Your task to perform on an android device: add a contact in the contacts app Image 0: 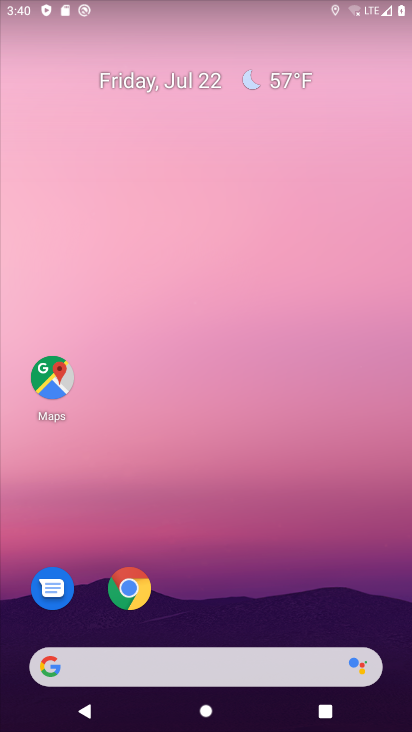
Step 0: drag from (220, 628) to (186, 124)
Your task to perform on an android device: add a contact in the contacts app Image 1: 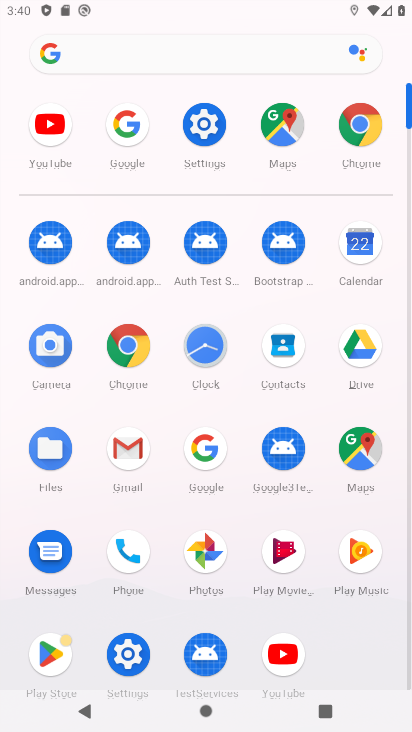
Step 1: click (128, 564)
Your task to perform on an android device: add a contact in the contacts app Image 2: 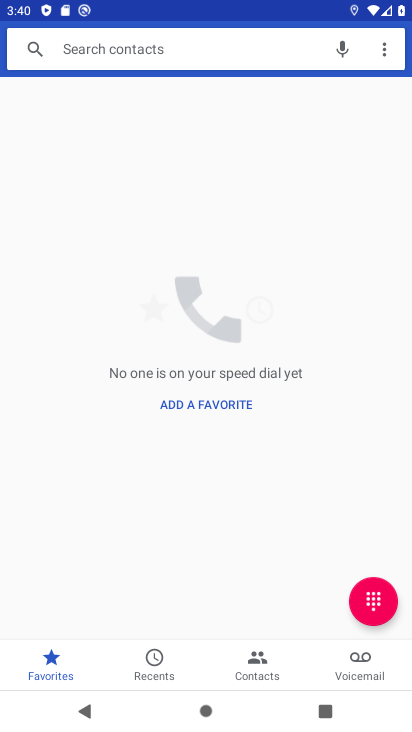
Step 2: click (272, 658)
Your task to perform on an android device: add a contact in the contacts app Image 3: 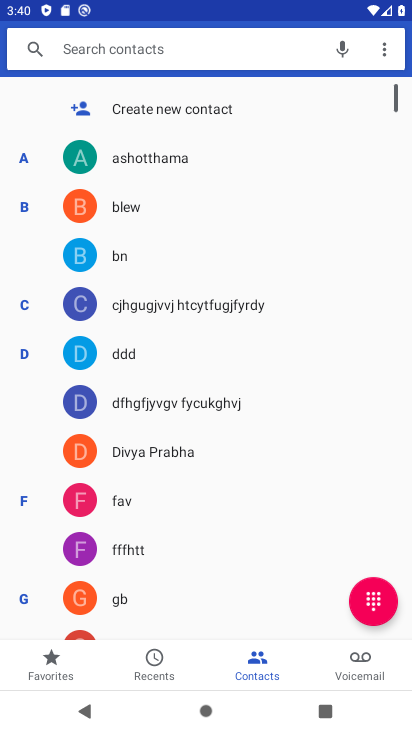
Step 3: click (107, 114)
Your task to perform on an android device: add a contact in the contacts app Image 4: 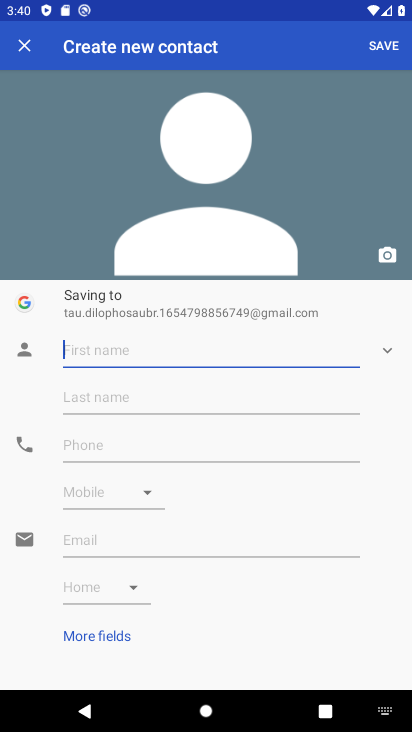
Step 4: type "Drive "
Your task to perform on an android device: add a contact in the contacts app Image 5: 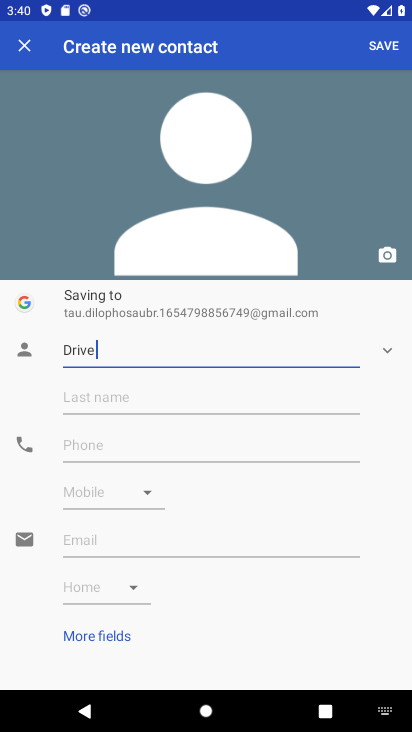
Step 5: type ""
Your task to perform on an android device: add a contact in the contacts app Image 6: 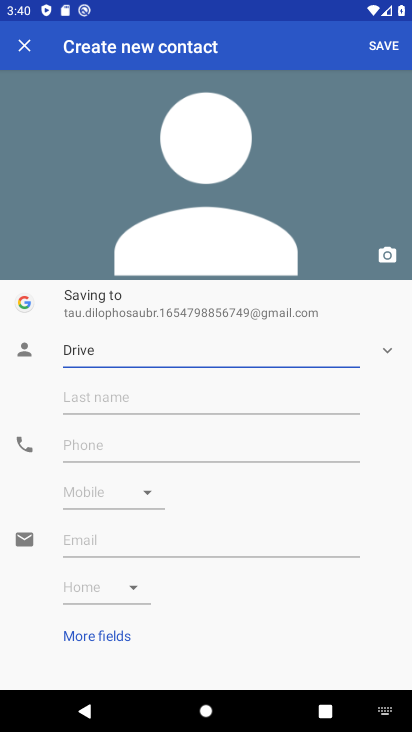
Step 6: click (126, 446)
Your task to perform on an android device: add a contact in the contacts app Image 7: 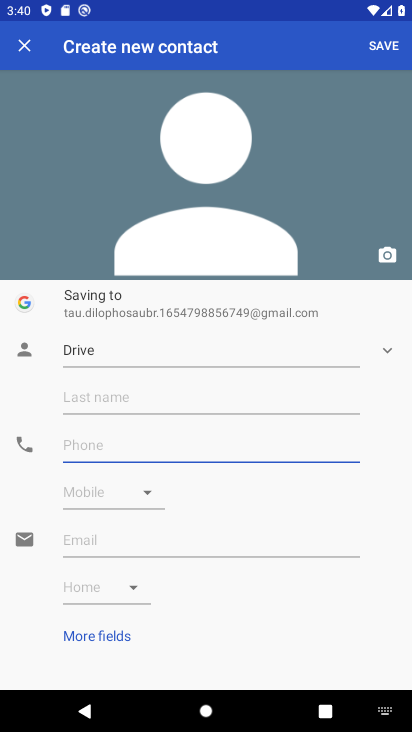
Step 7: type "333"
Your task to perform on an android device: add a contact in the contacts app Image 8: 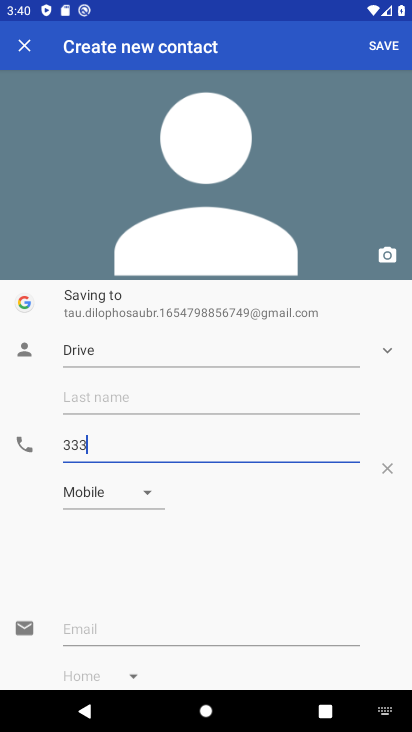
Step 8: type ""
Your task to perform on an android device: add a contact in the contacts app Image 9: 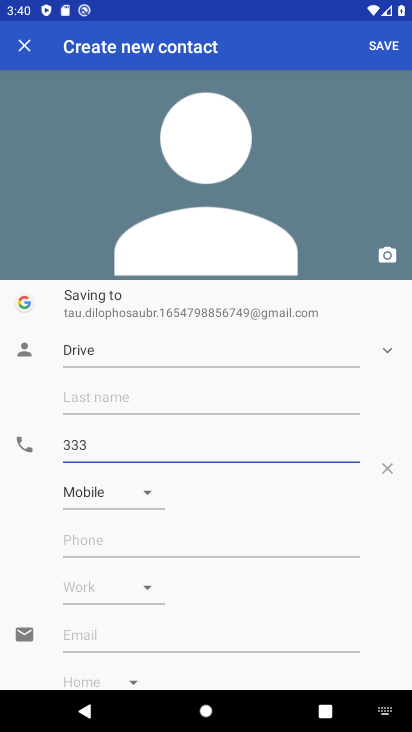
Step 9: click (379, 49)
Your task to perform on an android device: add a contact in the contacts app Image 10: 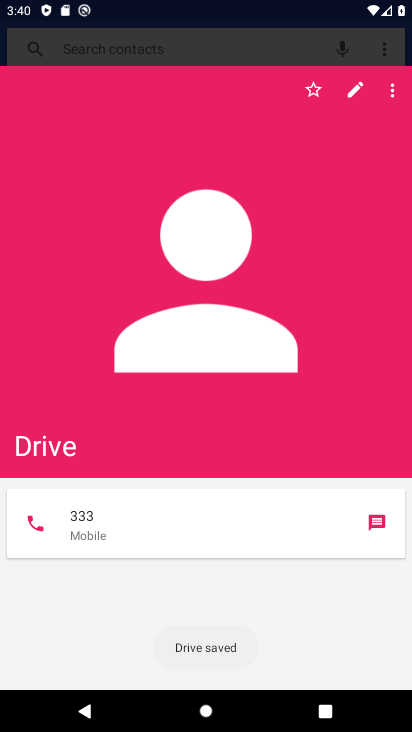
Step 10: task complete